Your task to perform on an android device: Open maps Image 0: 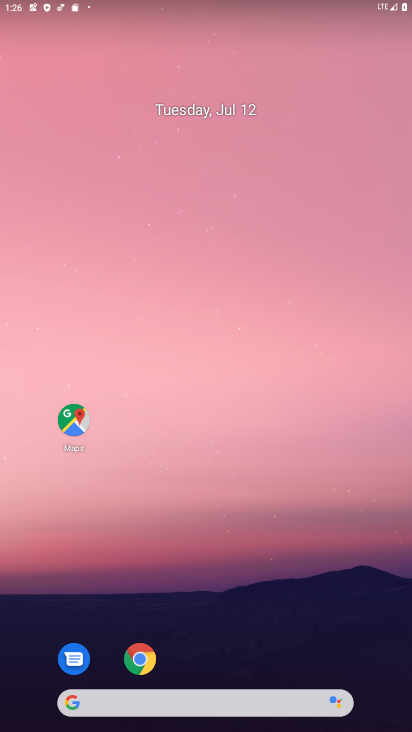
Step 0: drag from (258, 730) to (253, 216)
Your task to perform on an android device: Open maps Image 1: 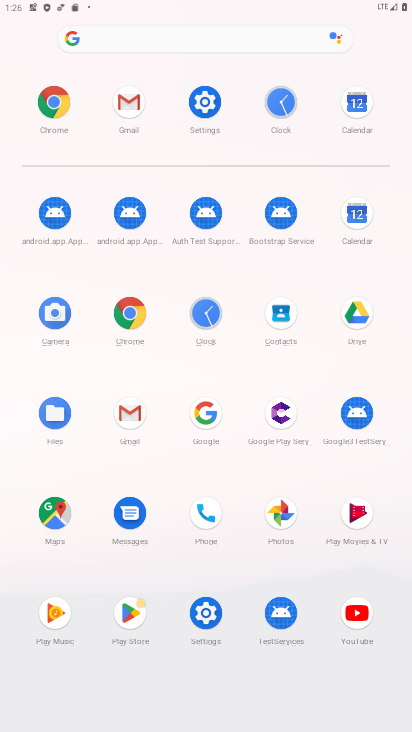
Step 1: click (47, 525)
Your task to perform on an android device: Open maps Image 2: 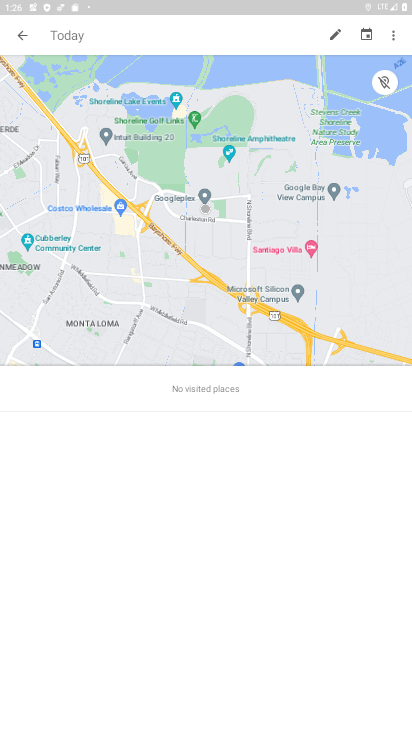
Step 2: task complete